Your task to perform on an android device: Open CNN.com Image 0: 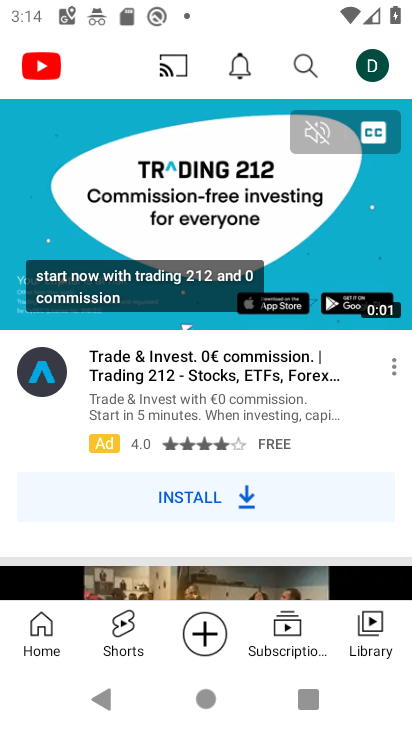
Step 0: press home button
Your task to perform on an android device: Open CNN.com Image 1: 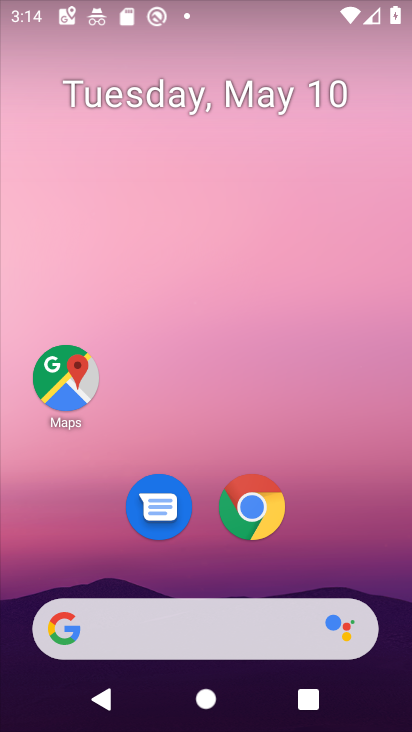
Step 1: click (244, 515)
Your task to perform on an android device: Open CNN.com Image 2: 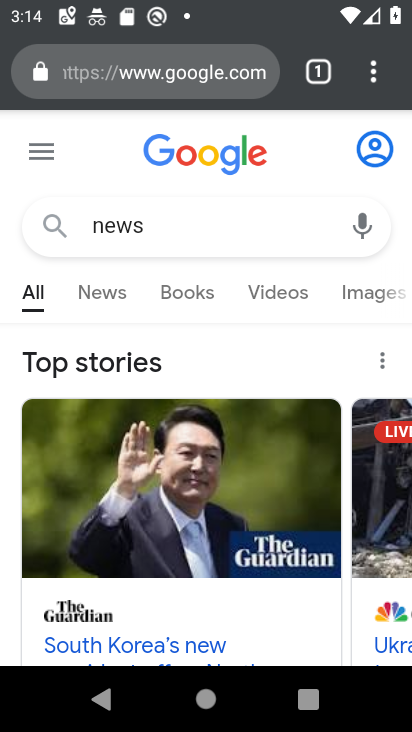
Step 2: click (155, 76)
Your task to perform on an android device: Open CNN.com Image 3: 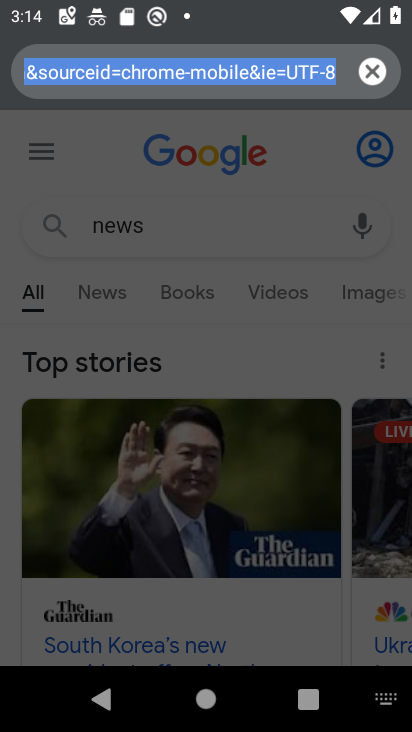
Step 3: type "CNN.com"
Your task to perform on an android device: Open CNN.com Image 4: 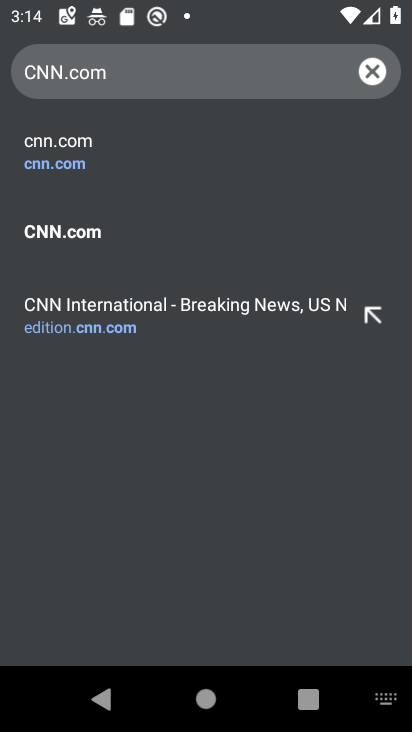
Step 4: click (183, 160)
Your task to perform on an android device: Open CNN.com Image 5: 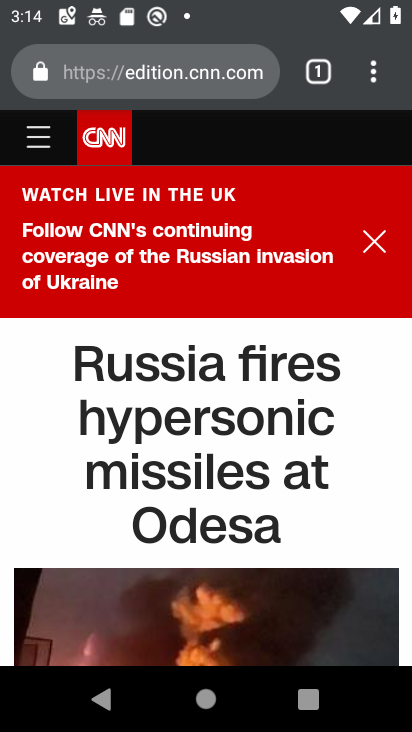
Step 5: task complete